Your task to perform on an android device: What's the weather going to be this weekend? Image 0: 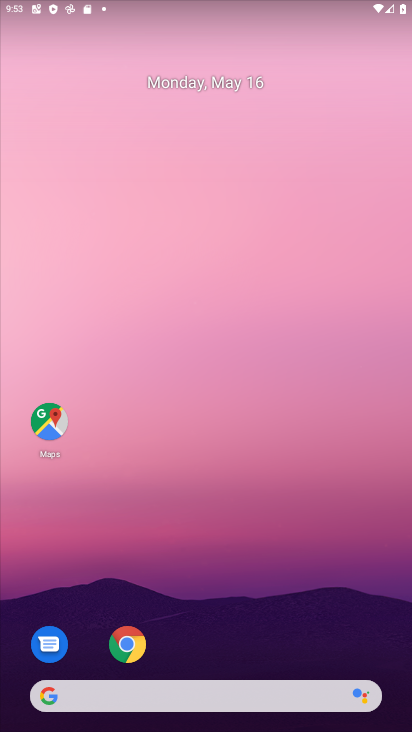
Step 0: click (224, 713)
Your task to perform on an android device: What's the weather going to be this weekend? Image 1: 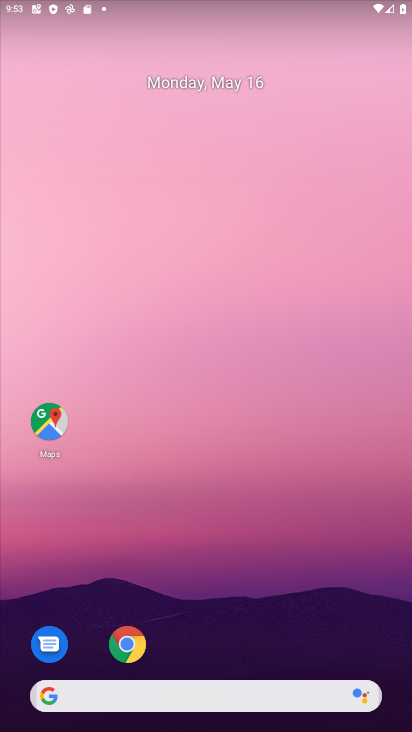
Step 1: click (237, 700)
Your task to perform on an android device: What's the weather going to be this weekend? Image 2: 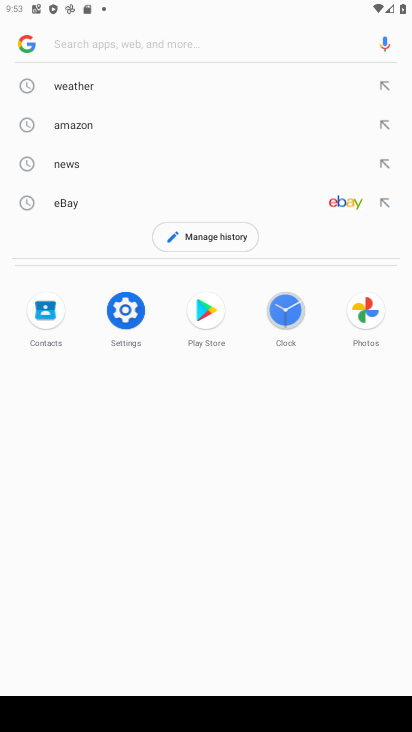
Step 2: type "What's the weather going to be this weekend?"
Your task to perform on an android device: What's the weather going to be this weekend? Image 3: 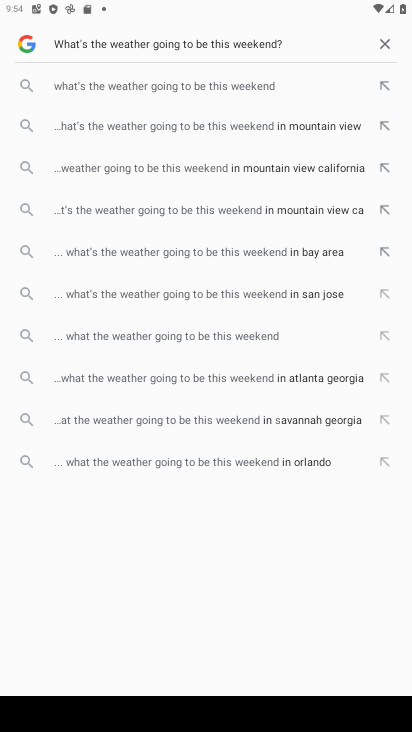
Step 3: click (303, 69)
Your task to perform on an android device: What's the weather going to be this weekend? Image 4: 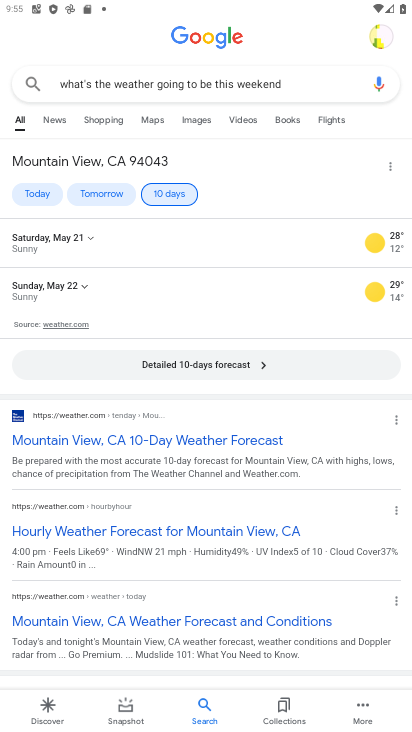
Step 4: task complete